Your task to perform on an android device: Go to display settings Image 0: 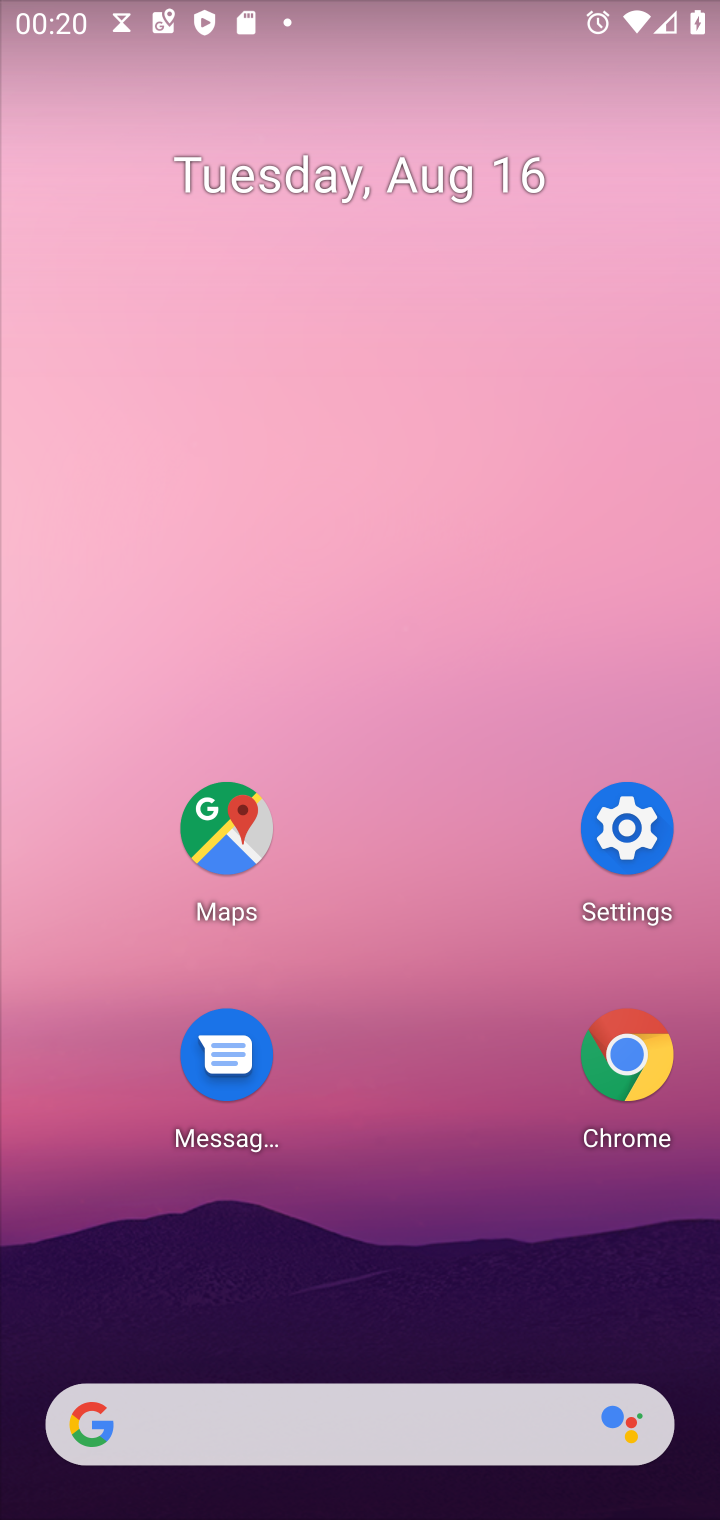
Step 0: click (631, 824)
Your task to perform on an android device: Go to display settings Image 1: 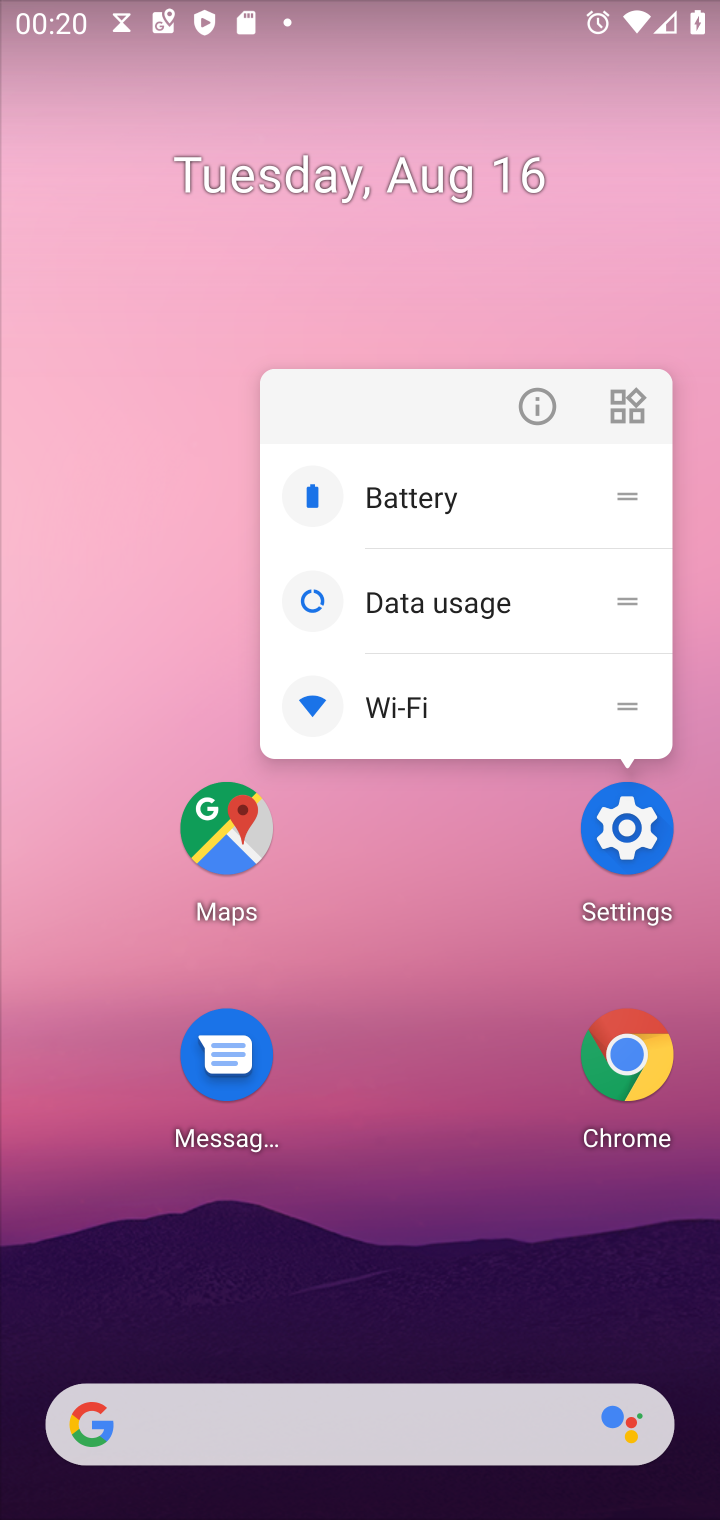
Step 1: click (629, 836)
Your task to perform on an android device: Go to display settings Image 2: 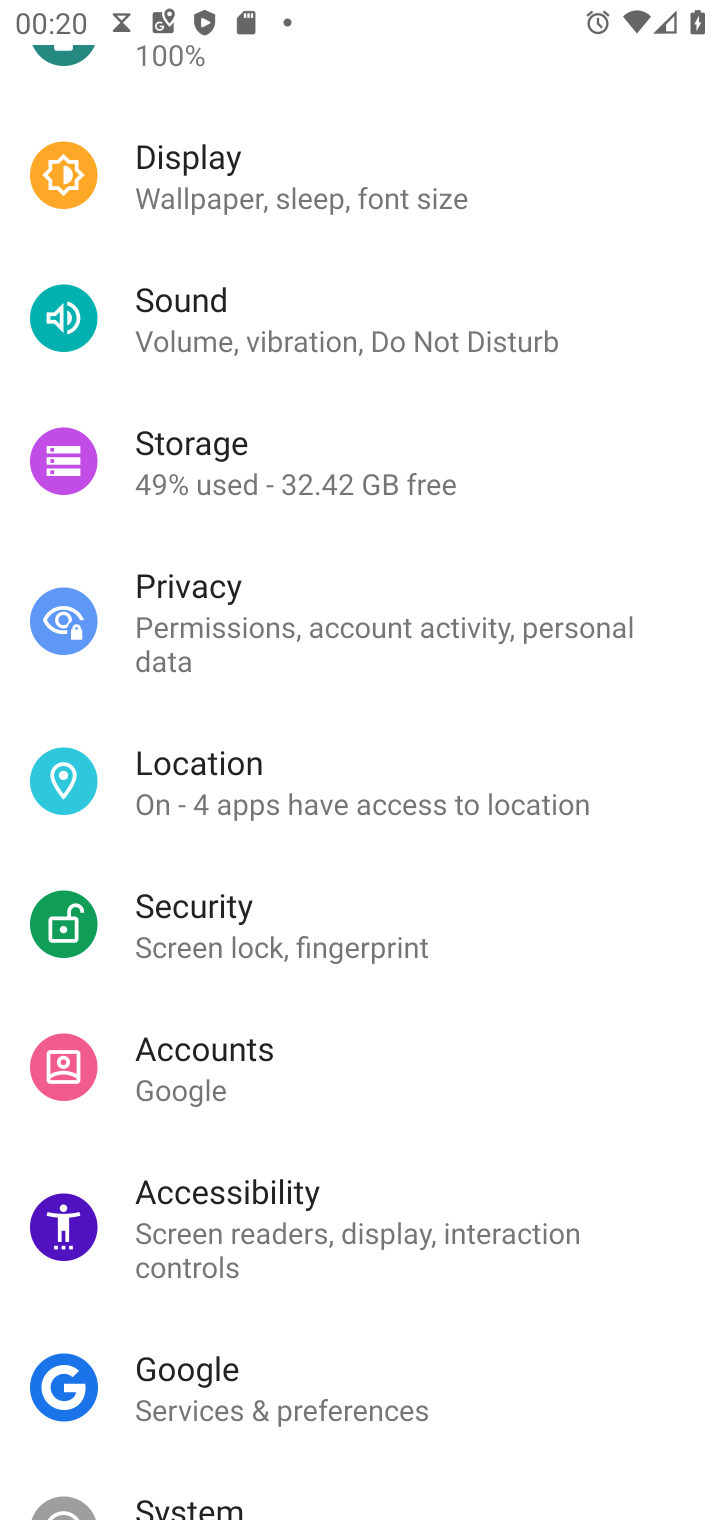
Step 2: click (185, 169)
Your task to perform on an android device: Go to display settings Image 3: 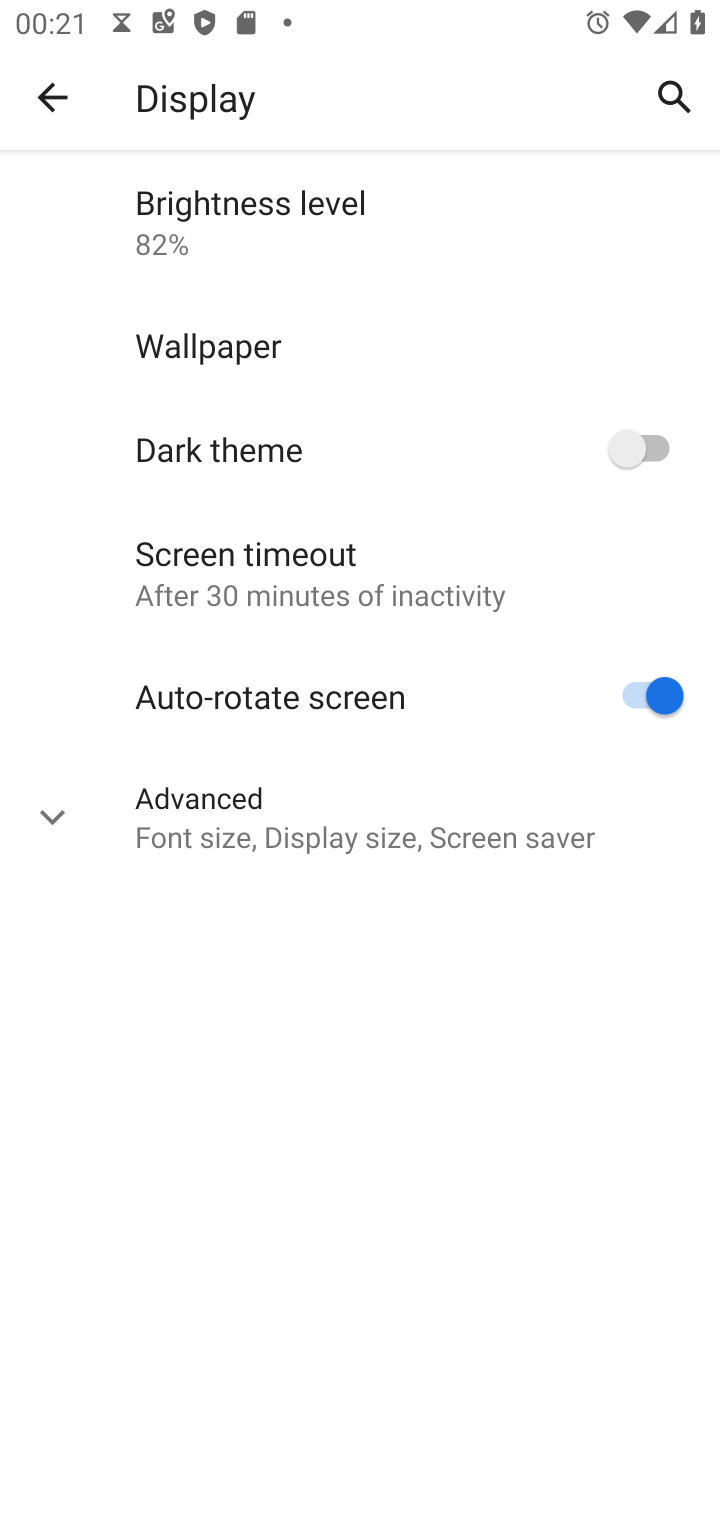
Step 3: task complete